Your task to perform on an android device: Go to Google maps Image 0: 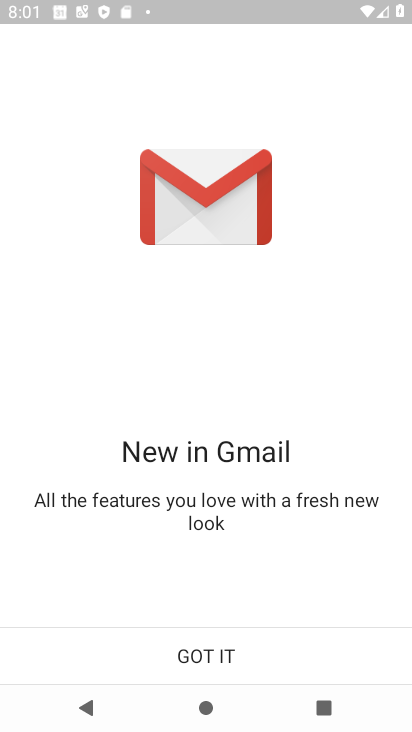
Step 0: click (332, 640)
Your task to perform on an android device: Go to Google maps Image 1: 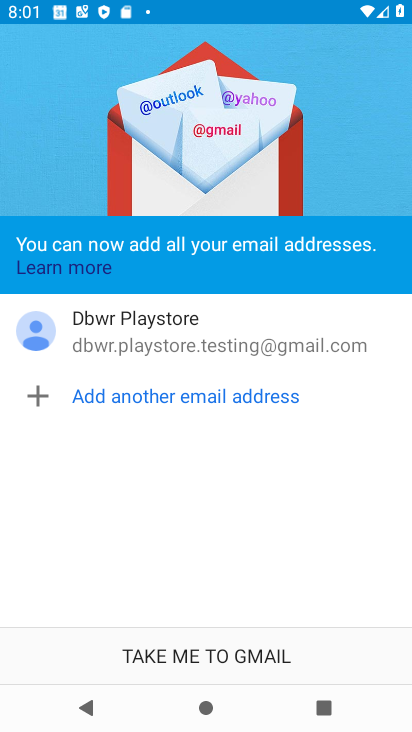
Step 1: click (332, 640)
Your task to perform on an android device: Go to Google maps Image 2: 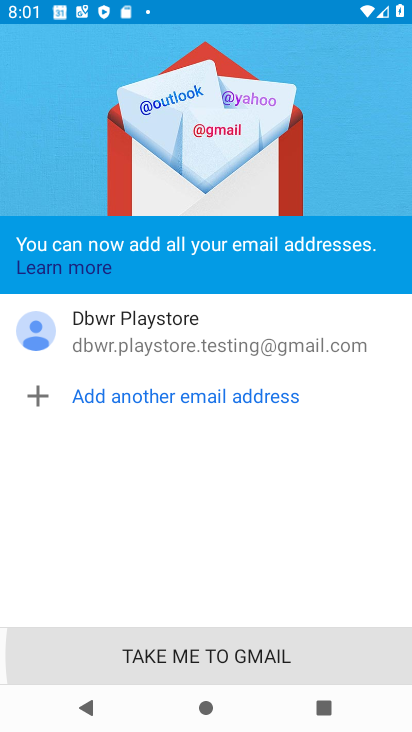
Step 2: click (332, 640)
Your task to perform on an android device: Go to Google maps Image 3: 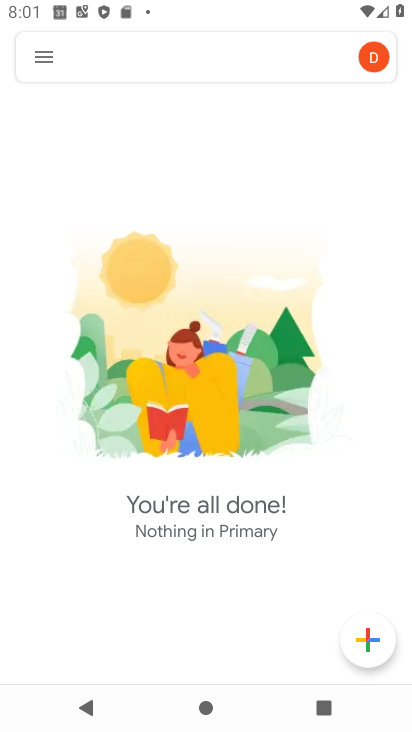
Step 3: press home button
Your task to perform on an android device: Go to Google maps Image 4: 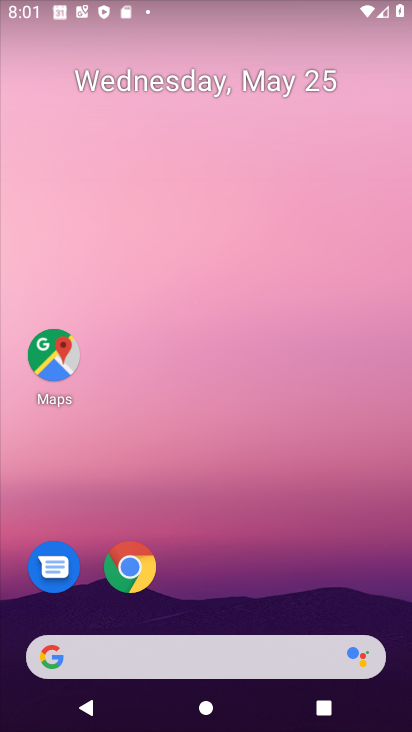
Step 4: drag from (226, 597) to (247, 372)
Your task to perform on an android device: Go to Google maps Image 5: 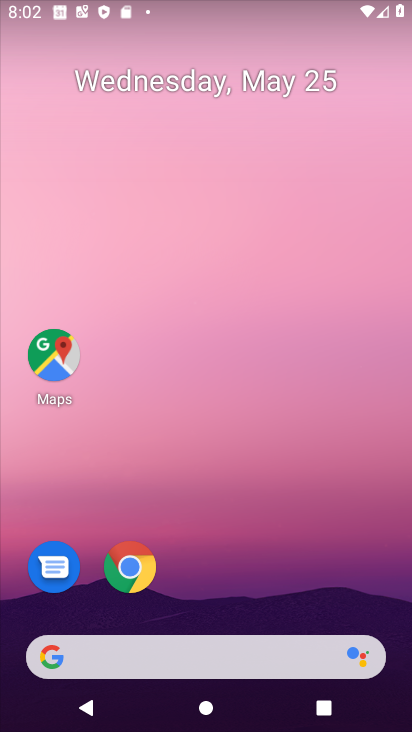
Step 5: click (47, 362)
Your task to perform on an android device: Go to Google maps Image 6: 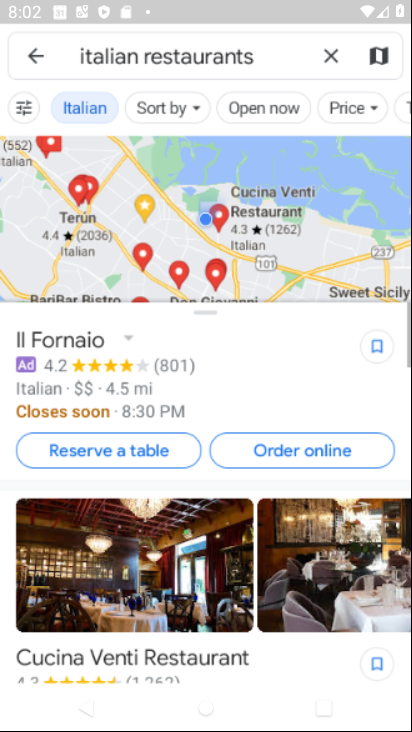
Step 6: task complete